Your task to perform on an android device: Open settings Image 0: 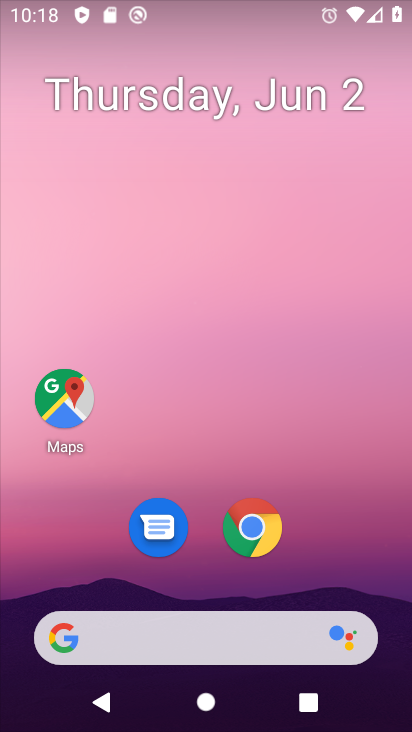
Step 0: drag from (198, 618) to (116, 13)
Your task to perform on an android device: Open settings Image 1: 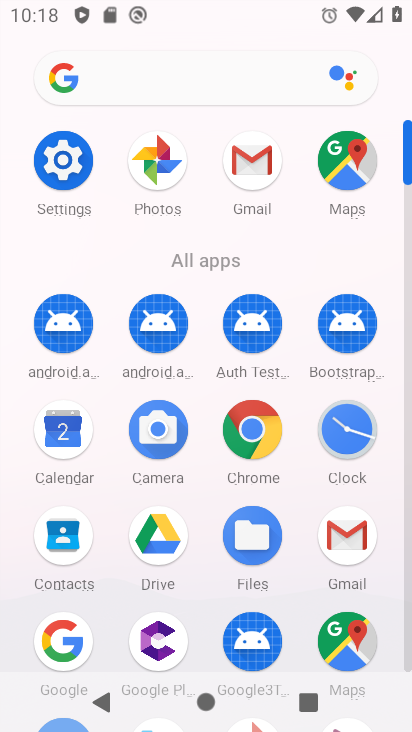
Step 1: click (62, 191)
Your task to perform on an android device: Open settings Image 2: 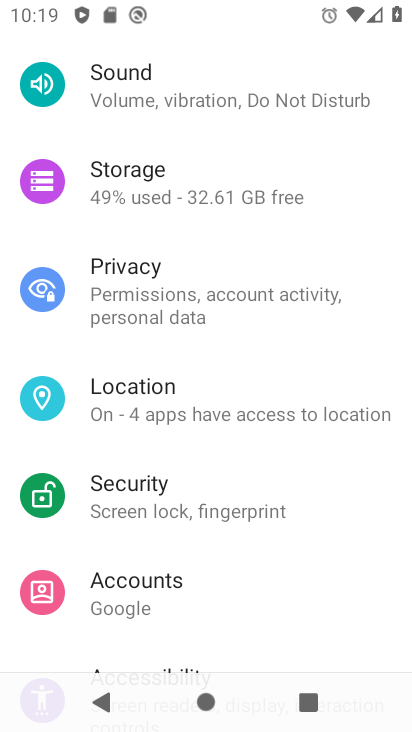
Step 2: task complete